Your task to perform on an android device: check data usage Image 0: 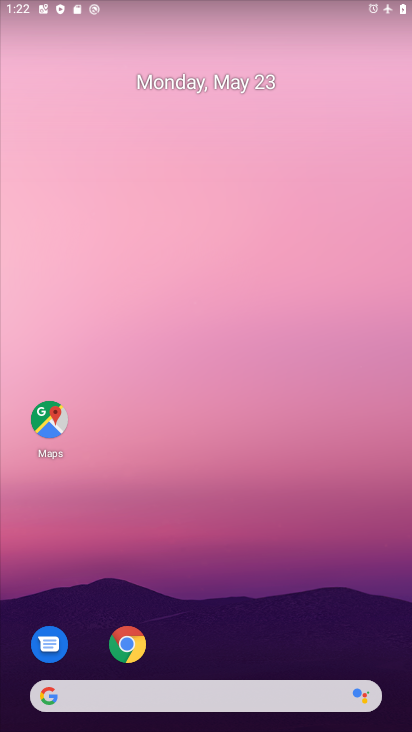
Step 0: drag from (292, 626) to (266, 104)
Your task to perform on an android device: check data usage Image 1: 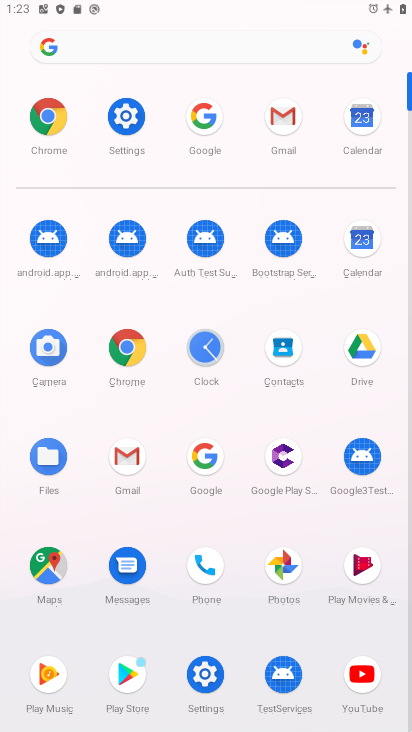
Step 1: click (208, 664)
Your task to perform on an android device: check data usage Image 2: 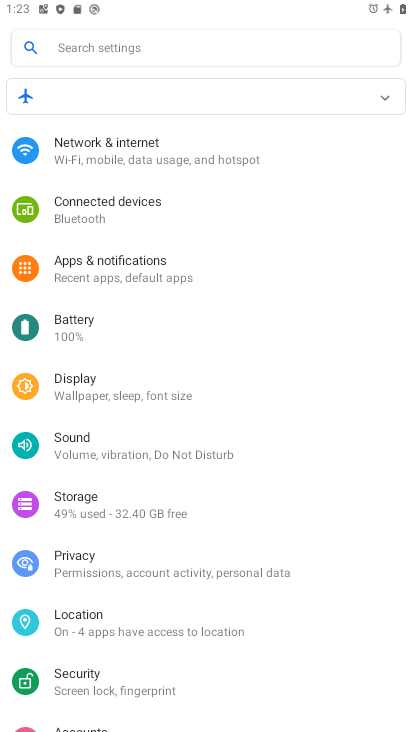
Step 2: click (163, 167)
Your task to perform on an android device: check data usage Image 3: 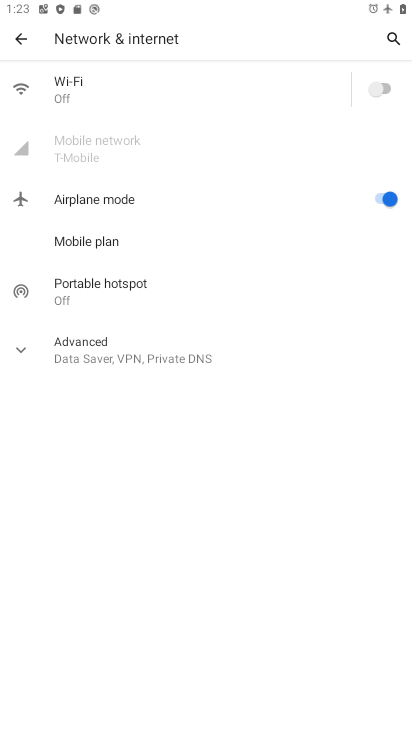
Step 3: task complete